Your task to perform on an android device: toggle wifi Image 0: 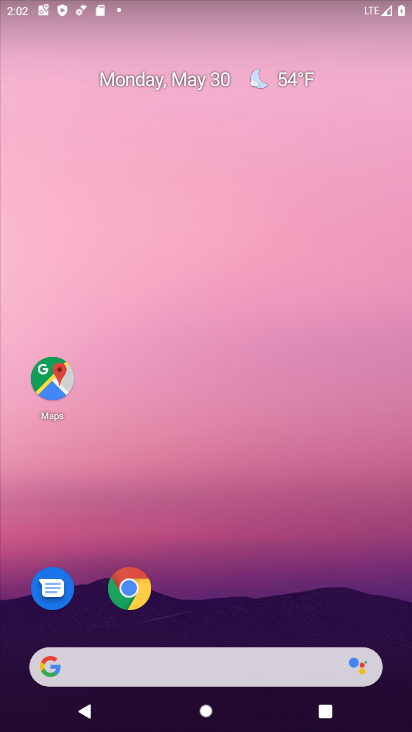
Step 0: drag from (190, 594) to (319, 65)
Your task to perform on an android device: toggle wifi Image 1: 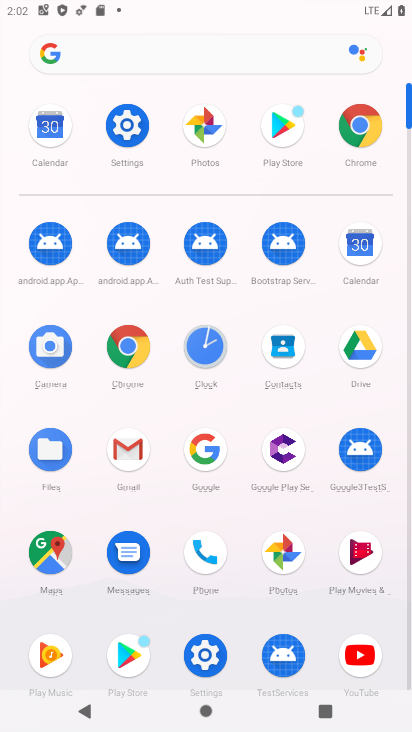
Step 1: click (120, 117)
Your task to perform on an android device: toggle wifi Image 2: 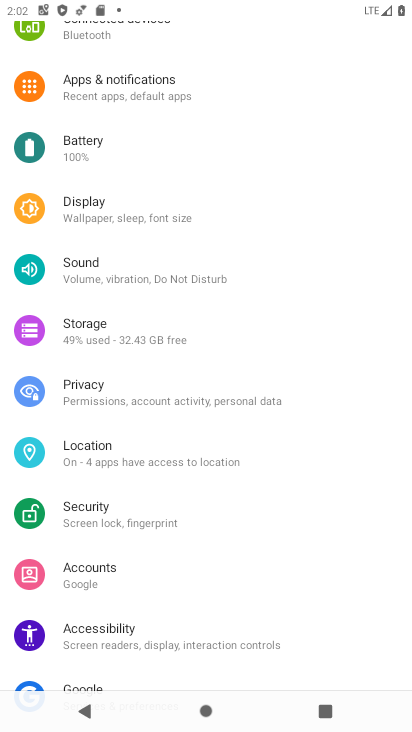
Step 2: drag from (146, 87) to (218, 551)
Your task to perform on an android device: toggle wifi Image 3: 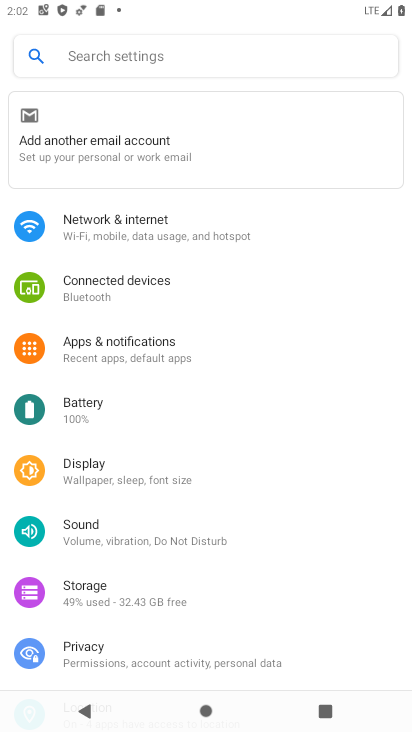
Step 3: click (130, 225)
Your task to perform on an android device: toggle wifi Image 4: 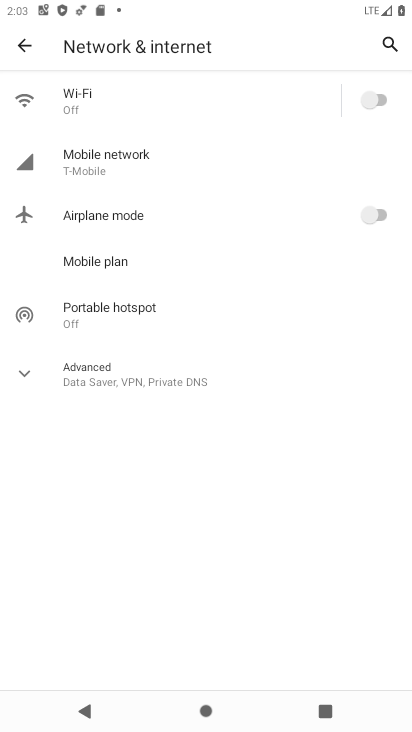
Step 4: click (373, 100)
Your task to perform on an android device: toggle wifi Image 5: 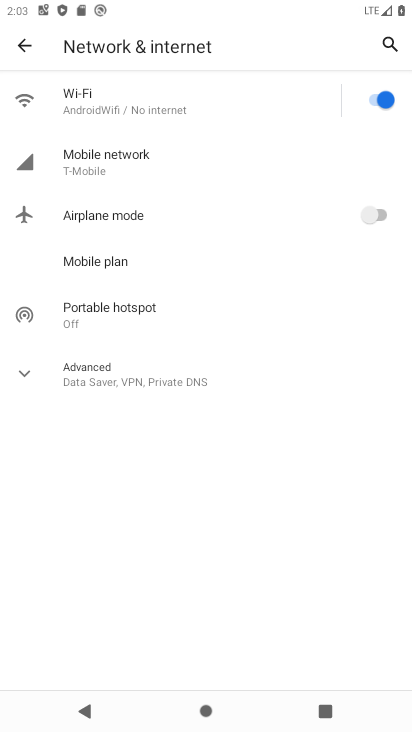
Step 5: task complete